Your task to perform on an android device: Add "jbl charge 4" to the cart on walmart Image 0: 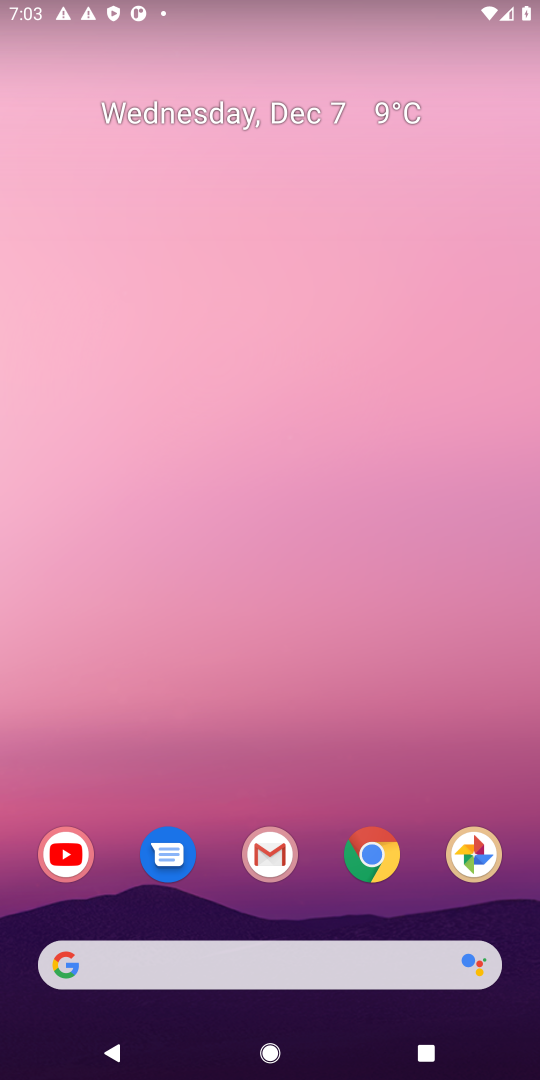
Step 0: click (193, 949)
Your task to perform on an android device: Add "jbl charge 4" to the cart on walmart Image 1: 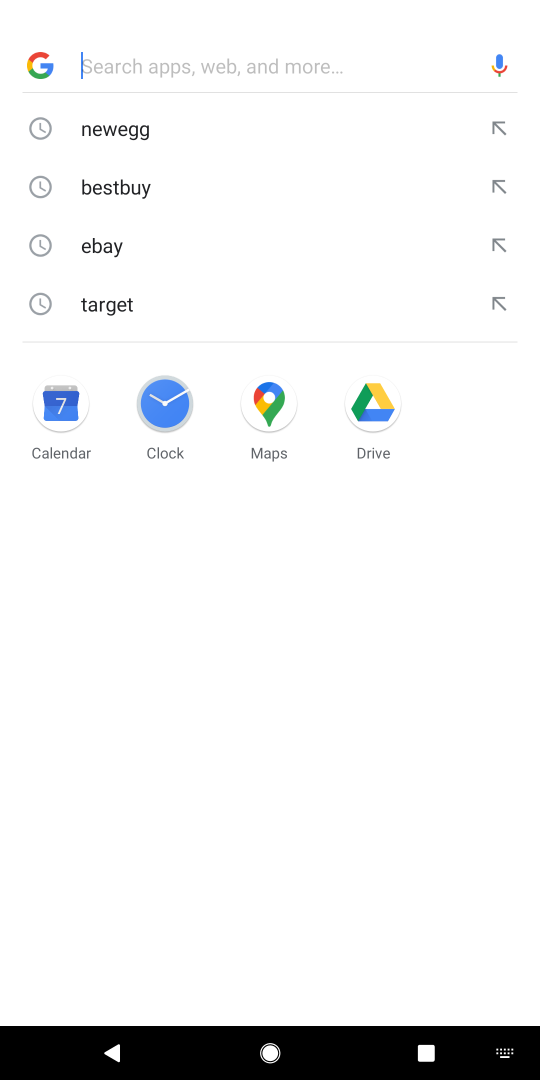
Step 1: type "walmart"
Your task to perform on an android device: Add "jbl charge 4" to the cart on walmart Image 2: 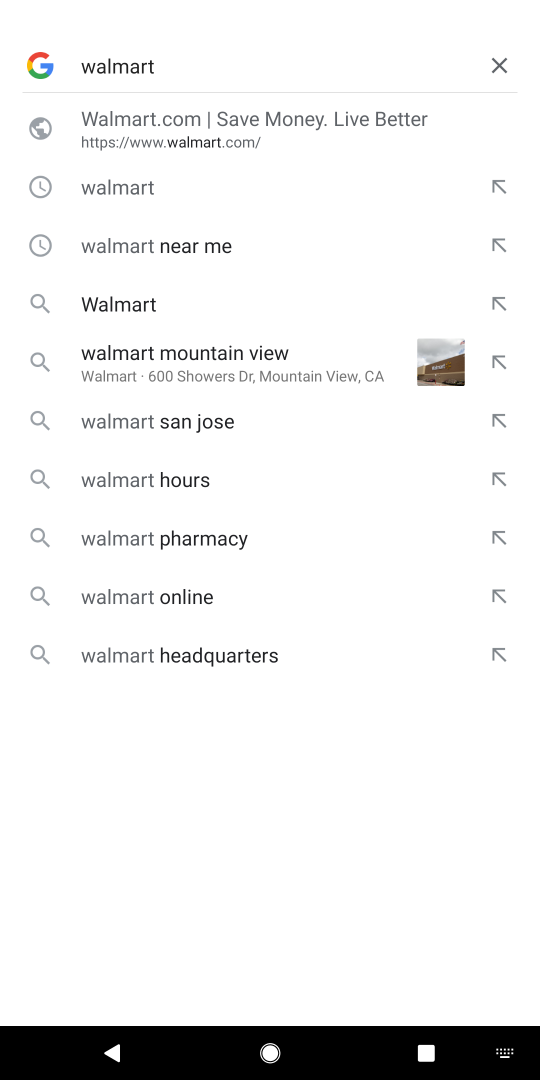
Step 2: click (122, 169)
Your task to perform on an android device: Add "jbl charge 4" to the cart on walmart Image 3: 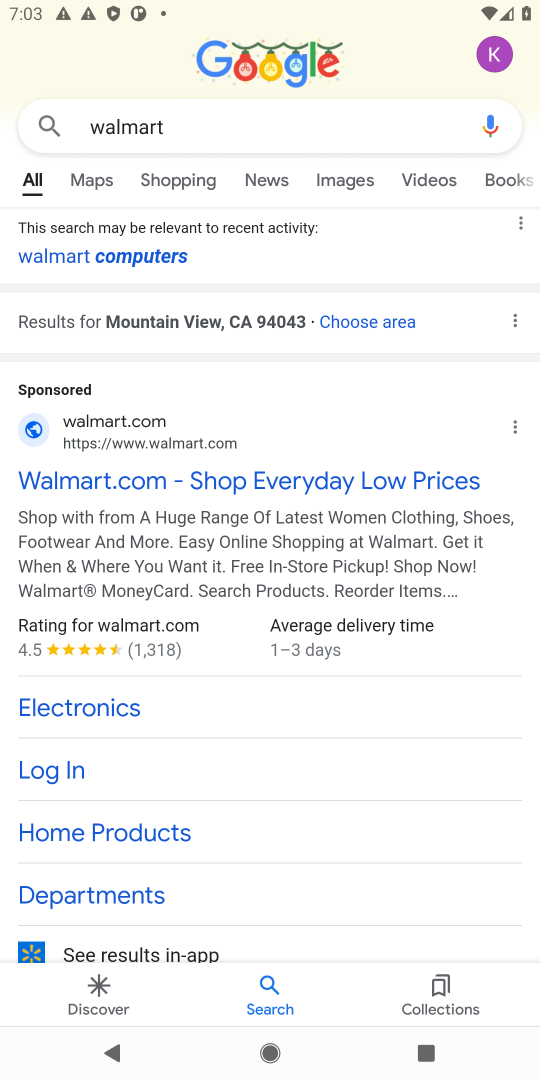
Step 3: click (149, 474)
Your task to perform on an android device: Add "jbl charge 4" to the cart on walmart Image 4: 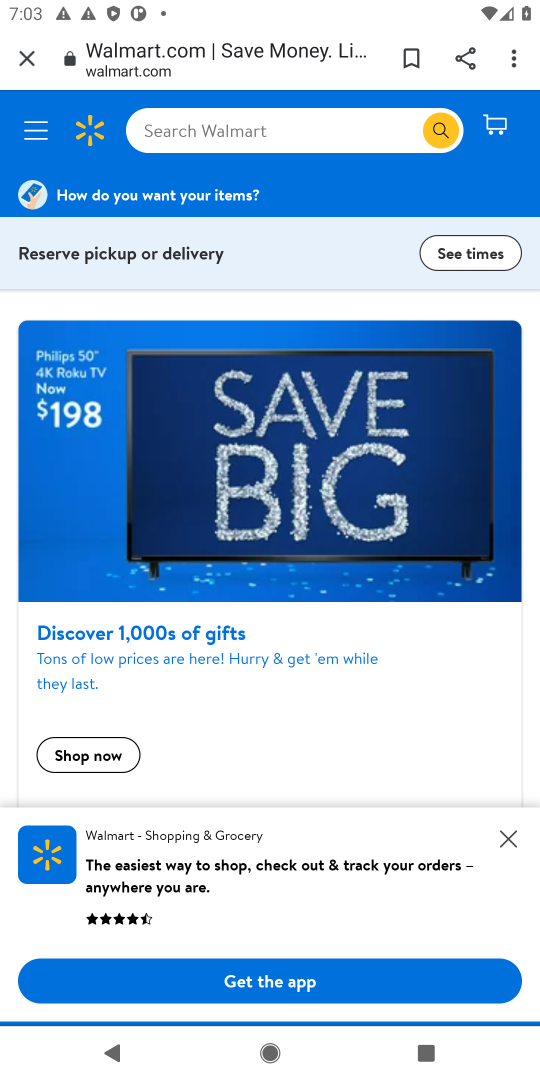
Step 4: click (149, 474)
Your task to perform on an android device: Add "jbl charge 4" to the cart on walmart Image 5: 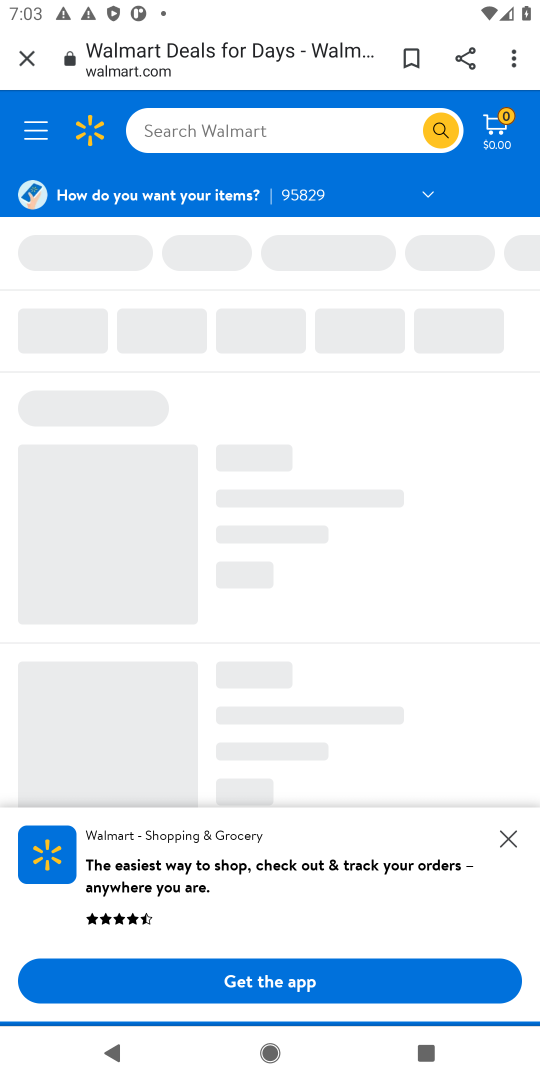
Step 5: click (501, 835)
Your task to perform on an android device: Add "jbl charge 4" to the cart on walmart Image 6: 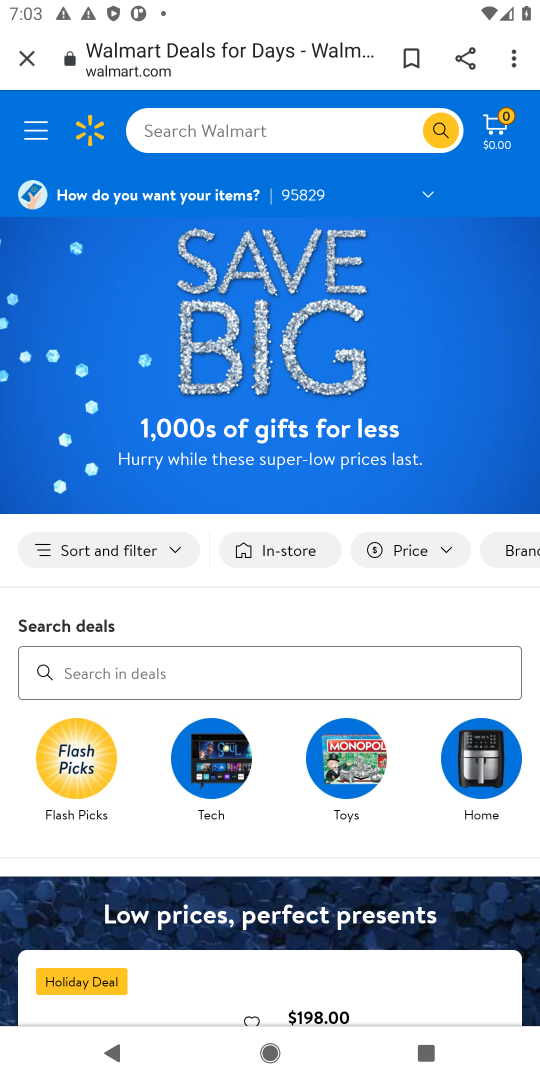
Step 6: click (179, 121)
Your task to perform on an android device: Add "jbl charge 4" to the cart on walmart Image 7: 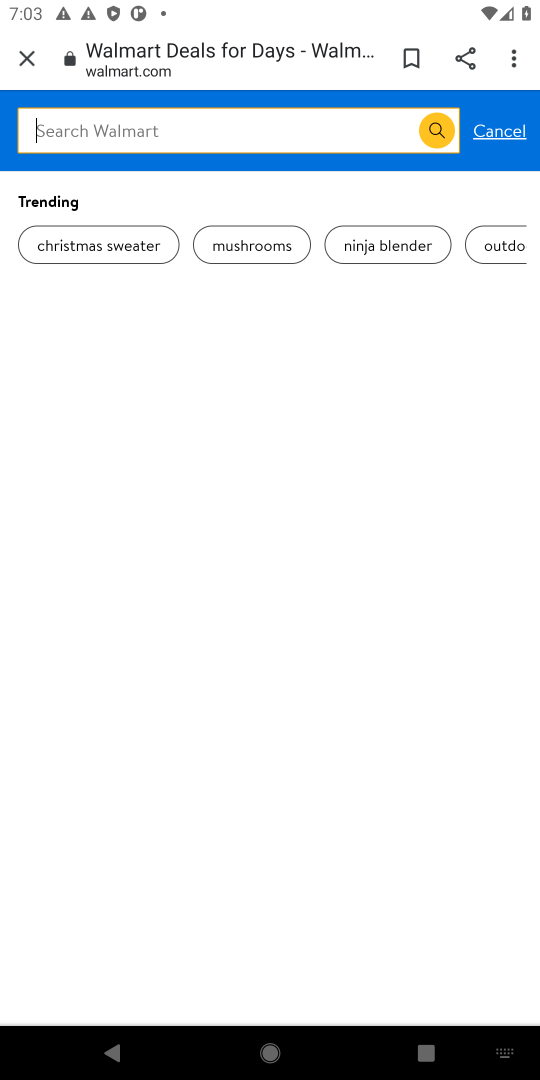
Step 7: type "jbl charge 4"
Your task to perform on an android device: Add "jbl charge 4" to the cart on walmart Image 8: 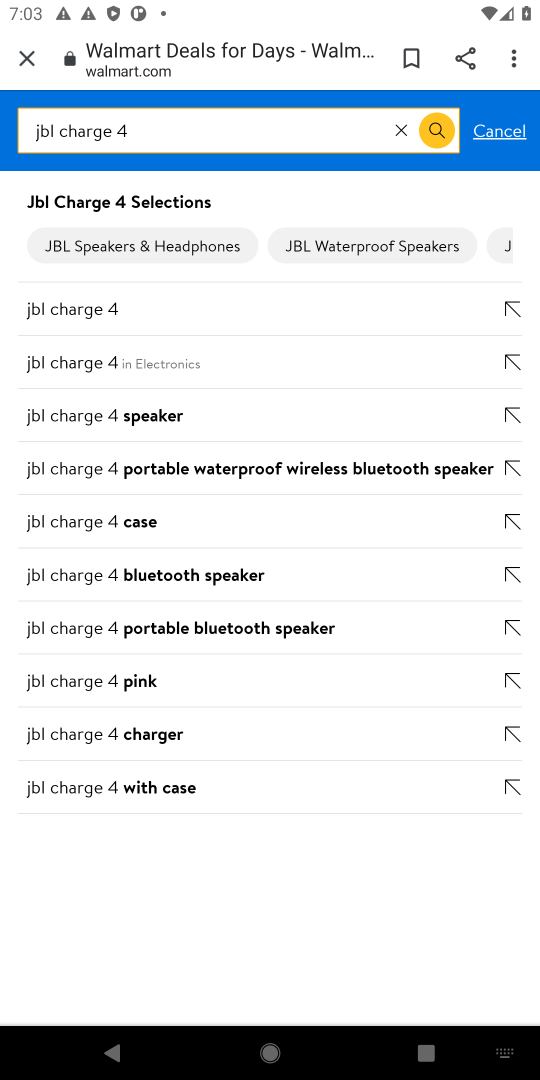
Step 8: click (129, 311)
Your task to perform on an android device: Add "jbl charge 4" to the cart on walmart Image 9: 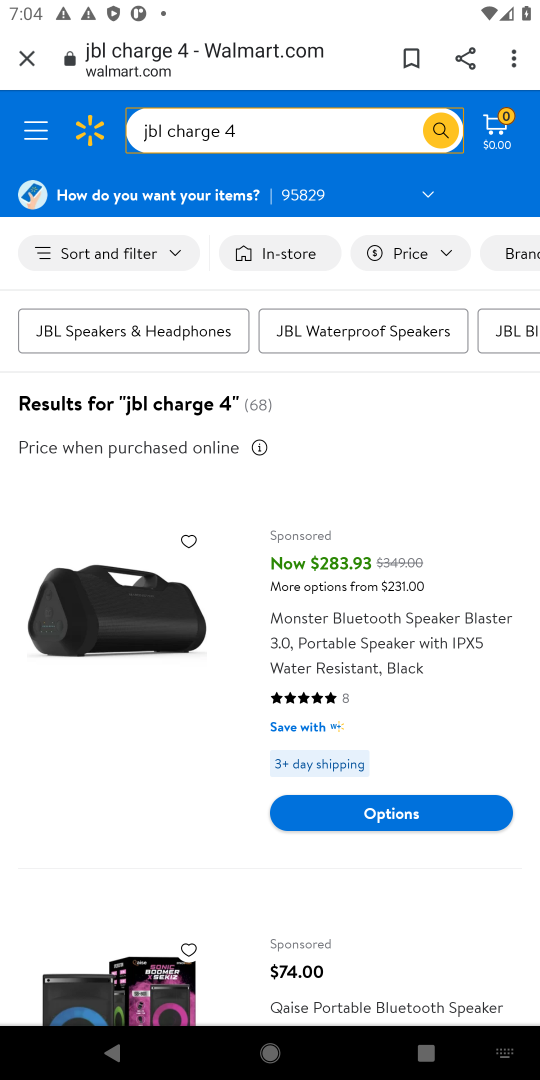
Step 9: click (352, 820)
Your task to perform on an android device: Add "jbl charge 4" to the cart on walmart Image 10: 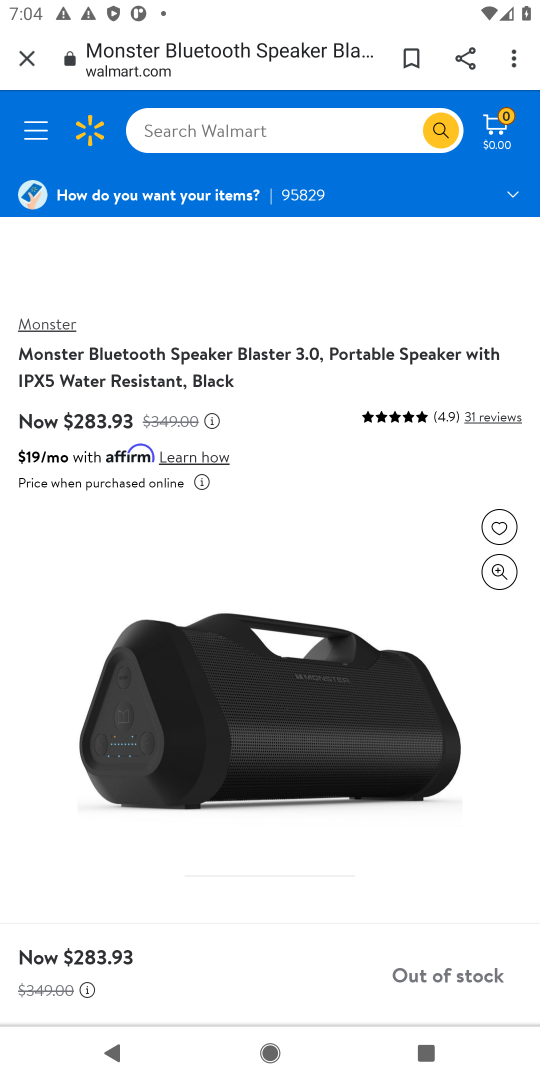
Step 10: drag from (371, 894) to (227, 447)
Your task to perform on an android device: Add "jbl charge 4" to the cart on walmart Image 11: 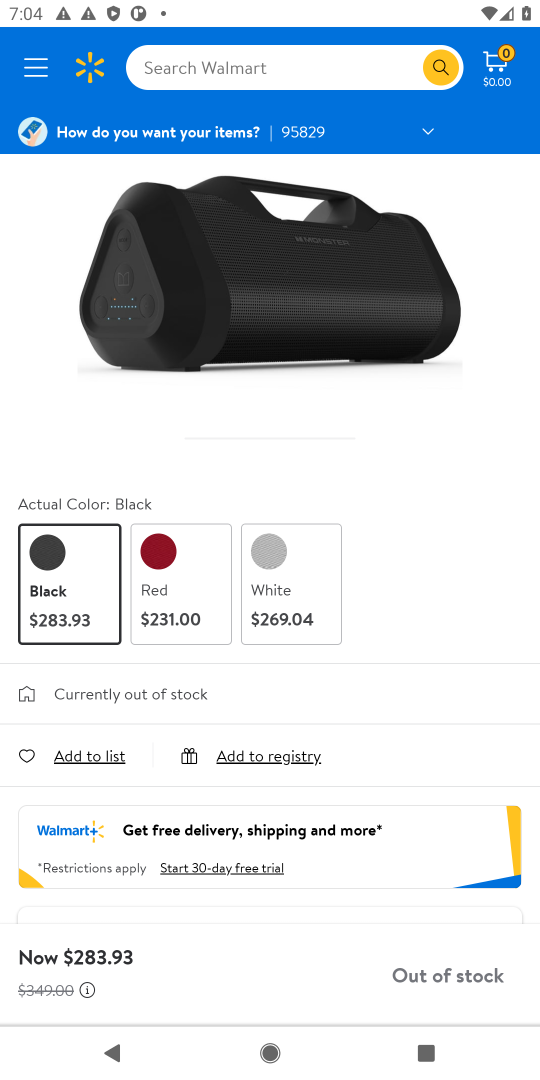
Step 11: drag from (375, 868) to (346, 344)
Your task to perform on an android device: Add "jbl charge 4" to the cart on walmart Image 12: 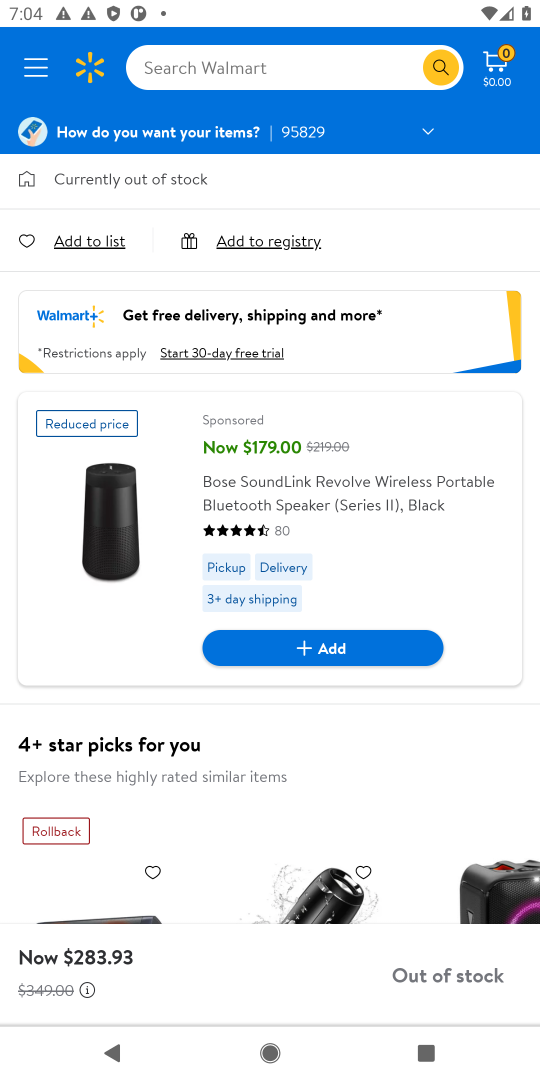
Step 12: click (377, 645)
Your task to perform on an android device: Add "jbl charge 4" to the cart on walmart Image 13: 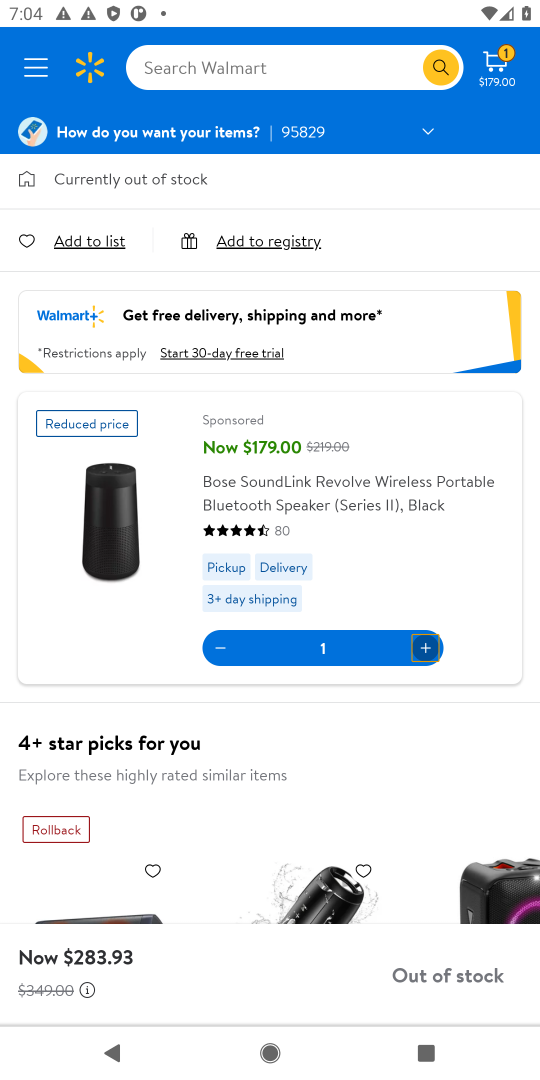
Step 13: task complete